Your task to perform on an android device: turn off wifi Image 0: 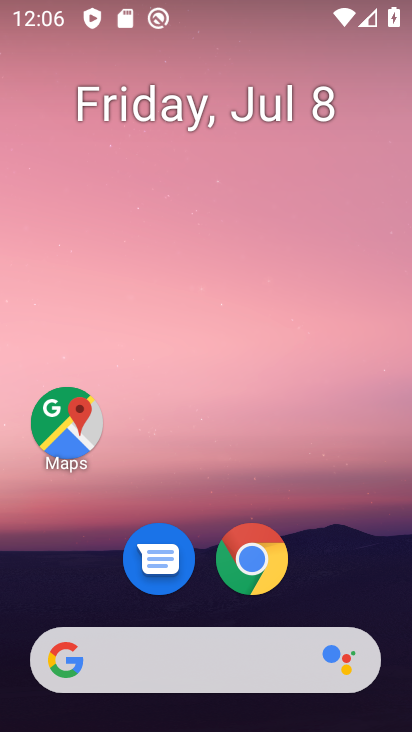
Step 0: drag from (223, 625) to (395, 199)
Your task to perform on an android device: turn off wifi Image 1: 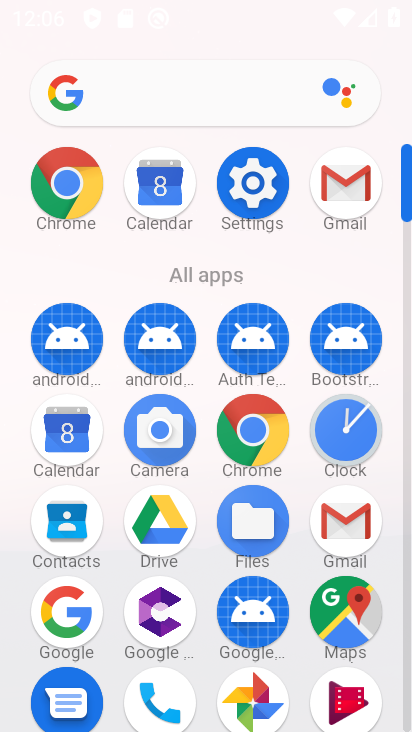
Step 1: click (250, 187)
Your task to perform on an android device: turn off wifi Image 2: 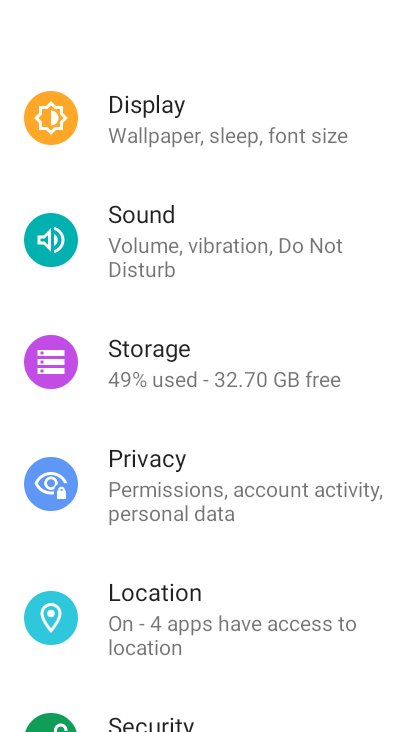
Step 2: drag from (157, 255) to (177, 591)
Your task to perform on an android device: turn off wifi Image 3: 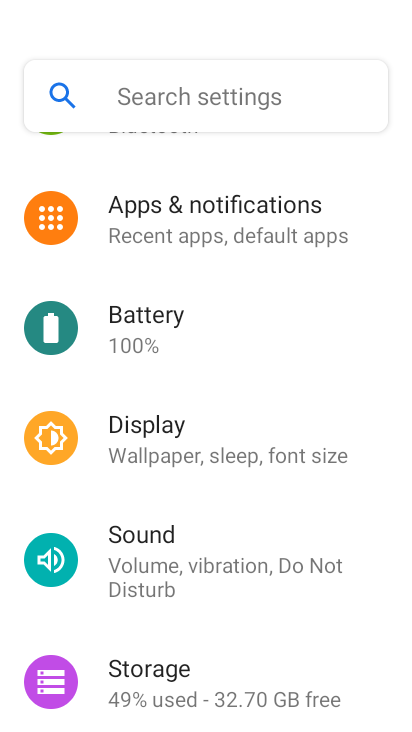
Step 3: drag from (156, 238) to (176, 443)
Your task to perform on an android device: turn off wifi Image 4: 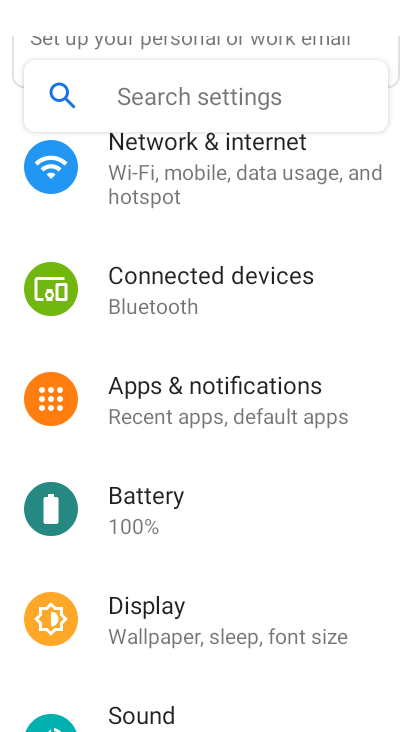
Step 4: click (141, 188)
Your task to perform on an android device: turn off wifi Image 5: 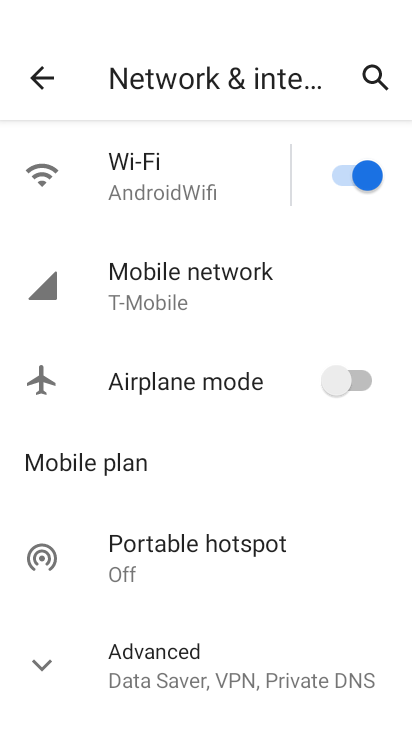
Step 5: click (157, 195)
Your task to perform on an android device: turn off wifi Image 6: 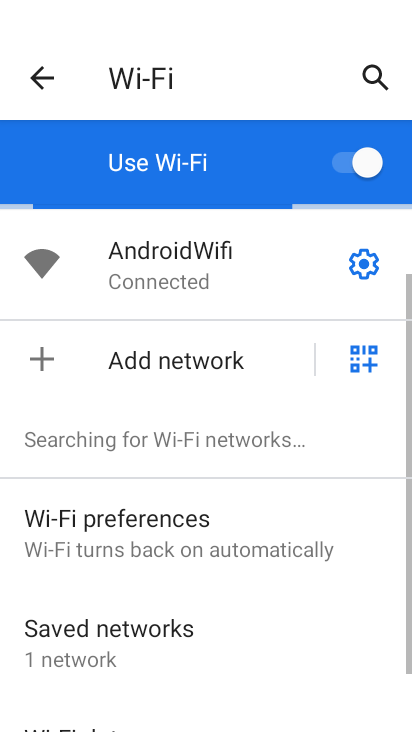
Step 6: click (365, 162)
Your task to perform on an android device: turn off wifi Image 7: 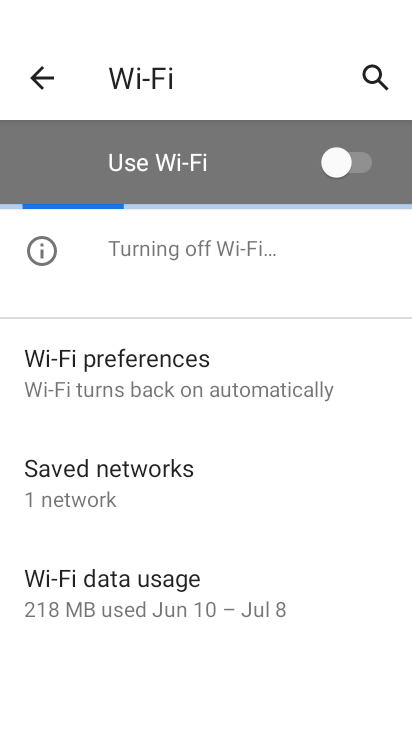
Step 7: task complete